Your task to perform on an android device: Open calendar and show me the fourth week of next month Image 0: 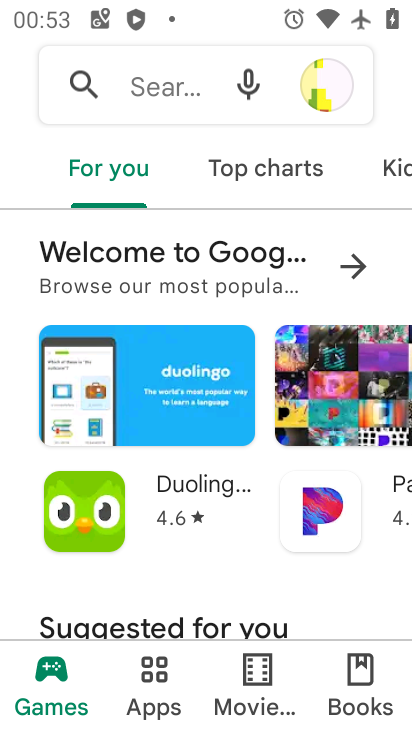
Step 0: press home button
Your task to perform on an android device: Open calendar and show me the fourth week of next month Image 1: 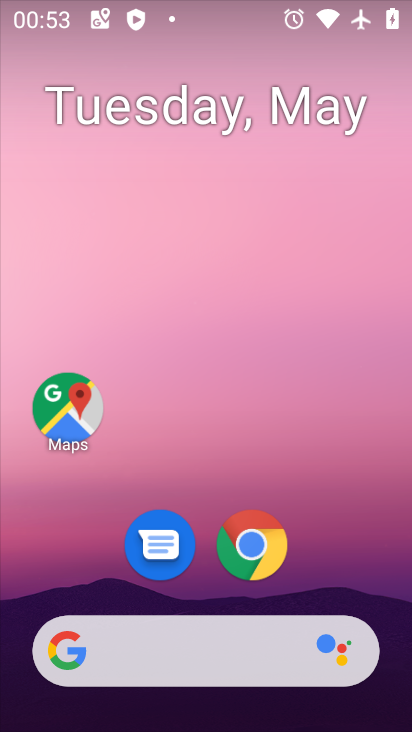
Step 1: drag from (317, 579) to (313, 13)
Your task to perform on an android device: Open calendar and show me the fourth week of next month Image 2: 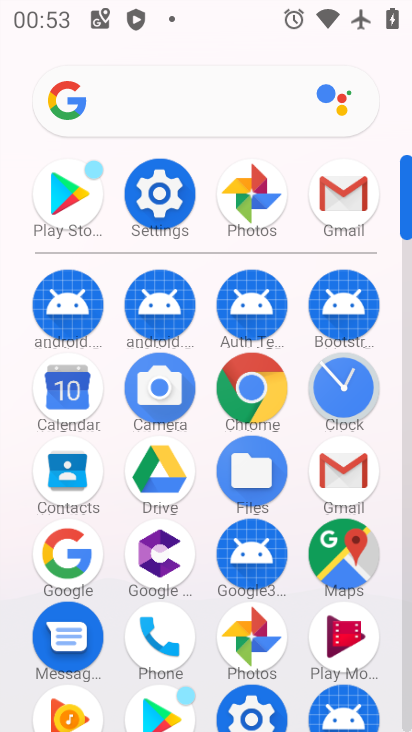
Step 2: click (74, 396)
Your task to perform on an android device: Open calendar and show me the fourth week of next month Image 3: 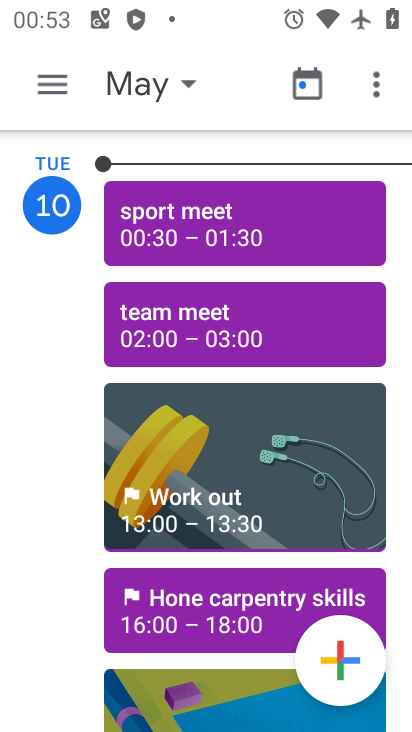
Step 3: click (134, 94)
Your task to perform on an android device: Open calendar and show me the fourth week of next month Image 4: 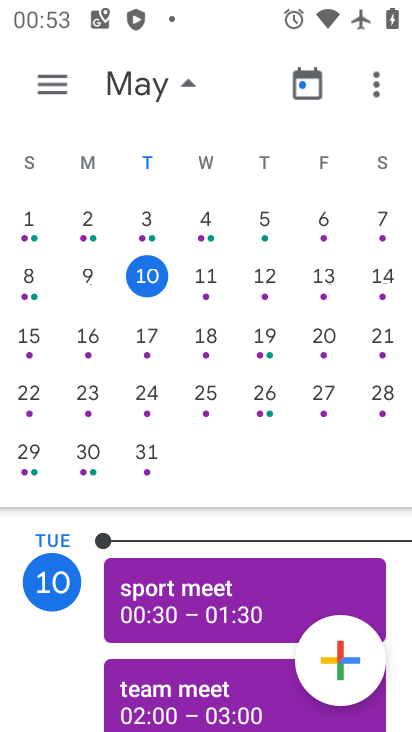
Step 4: drag from (350, 387) to (5, 302)
Your task to perform on an android device: Open calendar and show me the fourth week of next month Image 5: 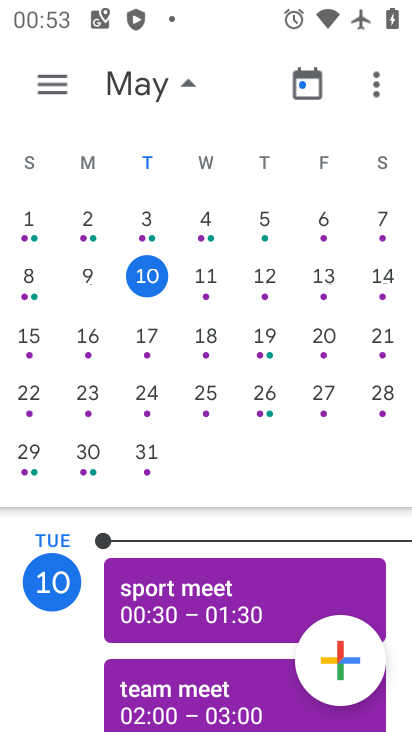
Step 5: drag from (363, 255) to (19, 226)
Your task to perform on an android device: Open calendar and show me the fourth week of next month Image 6: 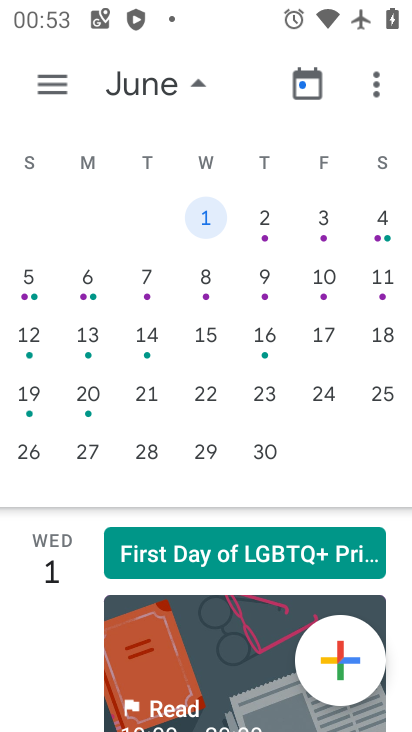
Step 6: click (24, 406)
Your task to perform on an android device: Open calendar and show me the fourth week of next month Image 7: 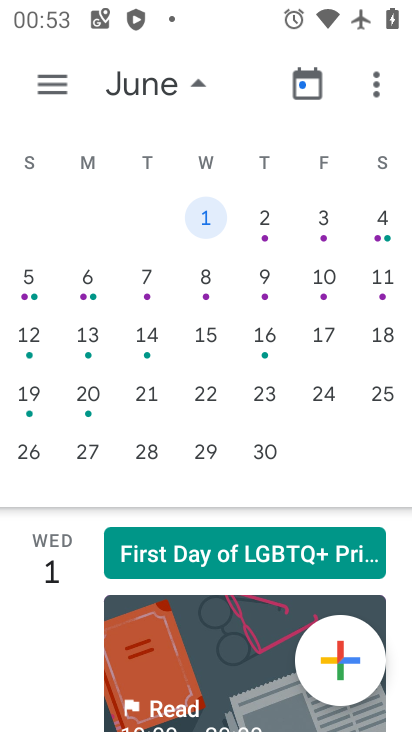
Step 7: click (38, 403)
Your task to perform on an android device: Open calendar and show me the fourth week of next month Image 8: 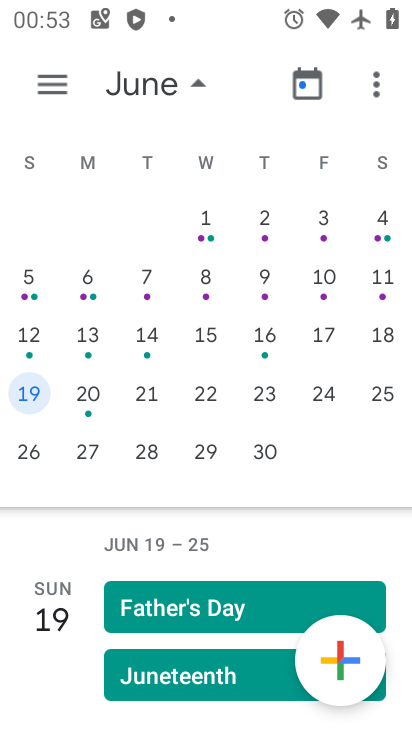
Step 8: task complete